Your task to perform on an android device: toggle improve location accuracy Image 0: 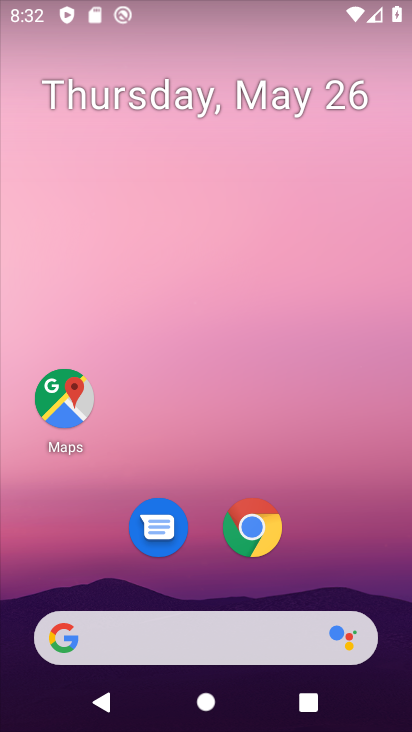
Step 0: drag from (311, 560) to (327, 153)
Your task to perform on an android device: toggle improve location accuracy Image 1: 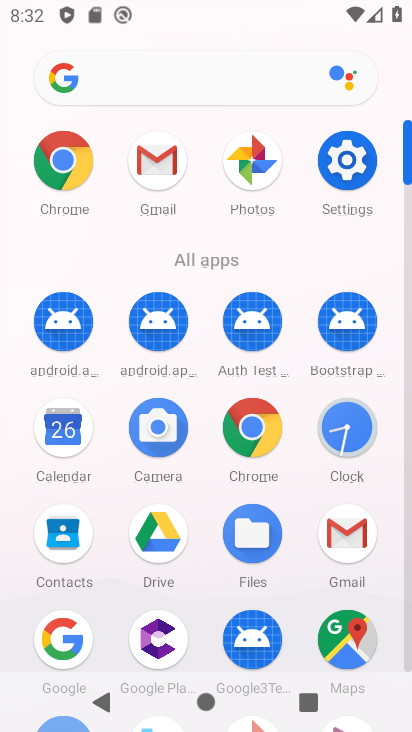
Step 1: click (331, 175)
Your task to perform on an android device: toggle improve location accuracy Image 2: 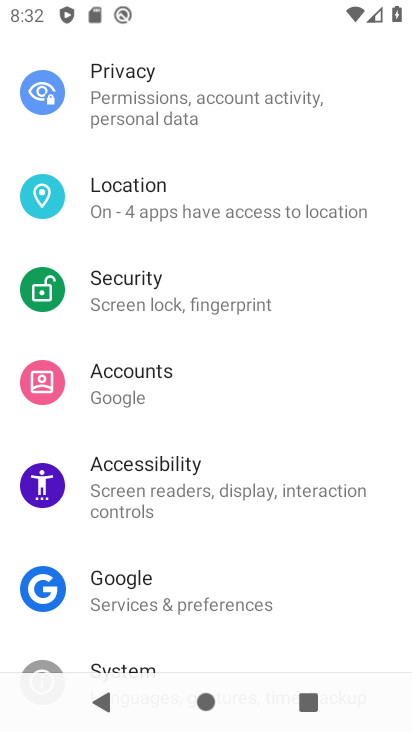
Step 2: drag from (223, 545) to (320, 140)
Your task to perform on an android device: toggle improve location accuracy Image 3: 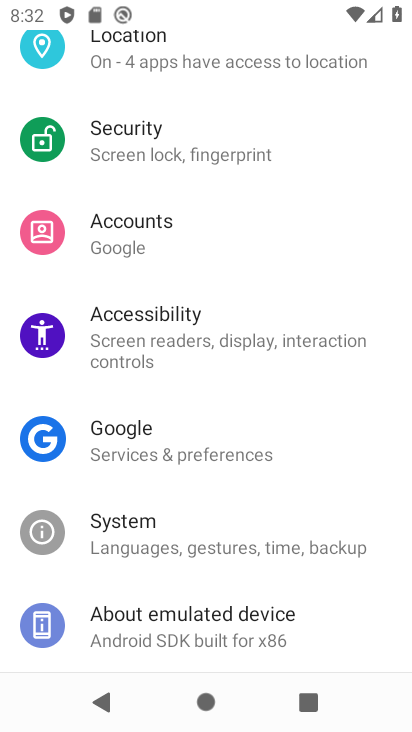
Step 3: click (205, 76)
Your task to perform on an android device: toggle improve location accuracy Image 4: 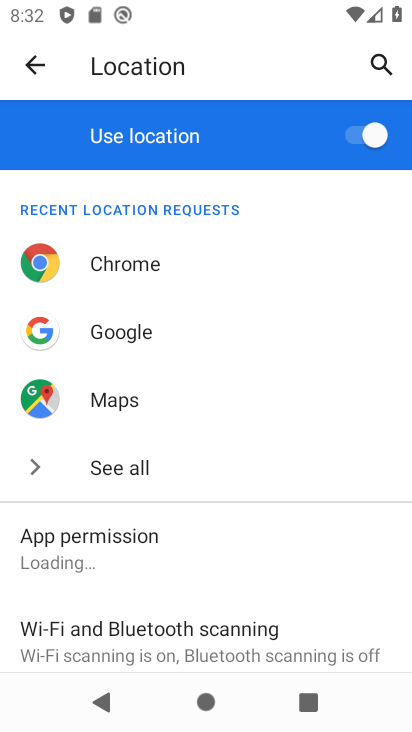
Step 4: drag from (236, 565) to (297, 129)
Your task to perform on an android device: toggle improve location accuracy Image 5: 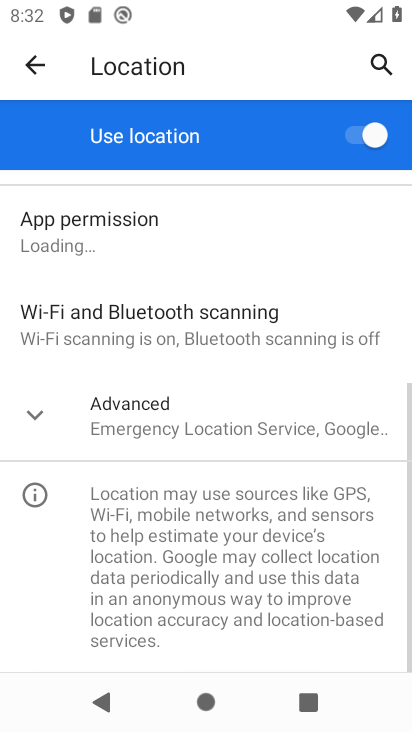
Step 5: click (194, 426)
Your task to perform on an android device: toggle improve location accuracy Image 6: 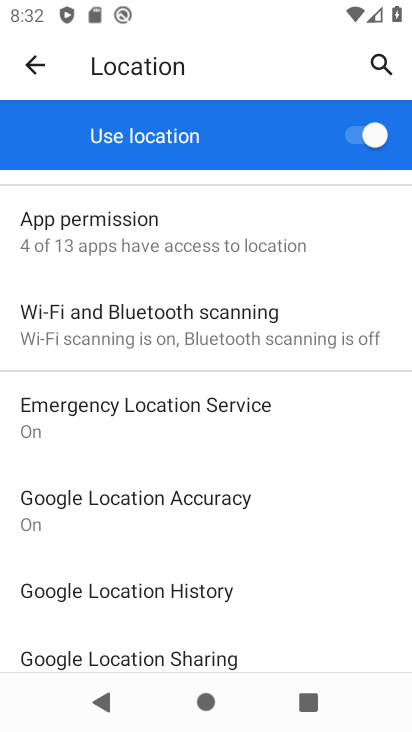
Step 6: click (191, 505)
Your task to perform on an android device: toggle improve location accuracy Image 7: 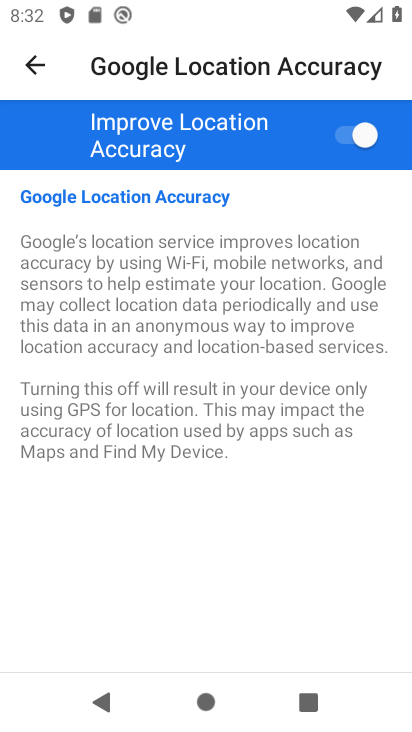
Step 7: click (344, 127)
Your task to perform on an android device: toggle improve location accuracy Image 8: 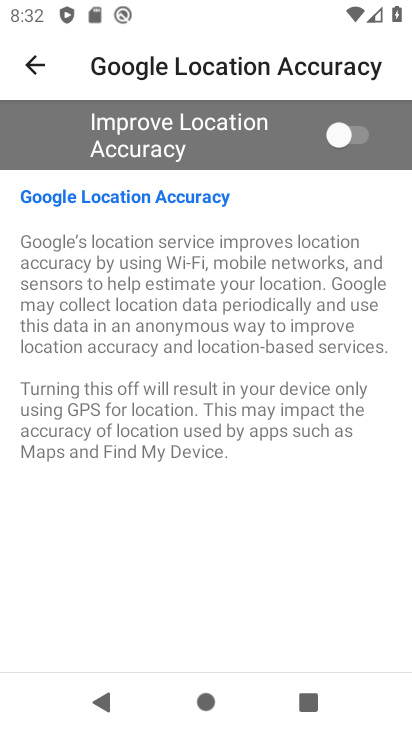
Step 8: task complete